Your task to perform on an android device: Open display settings Image 0: 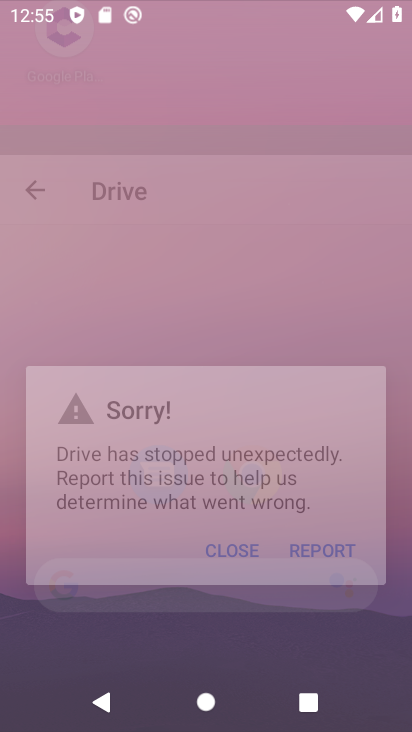
Step 0: click (370, 246)
Your task to perform on an android device: Open display settings Image 1: 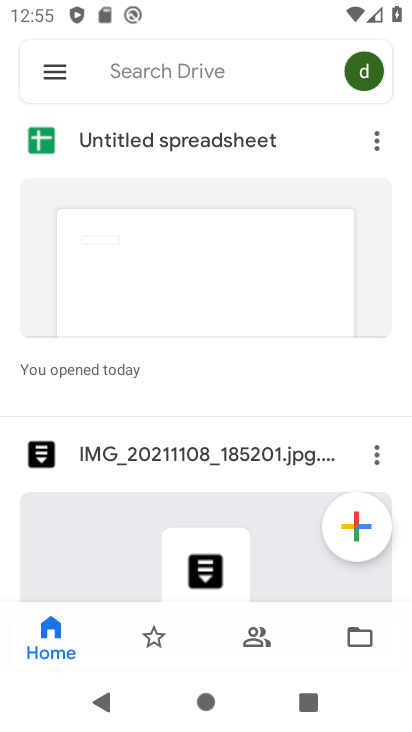
Step 1: press home button
Your task to perform on an android device: Open display settings Image 2: 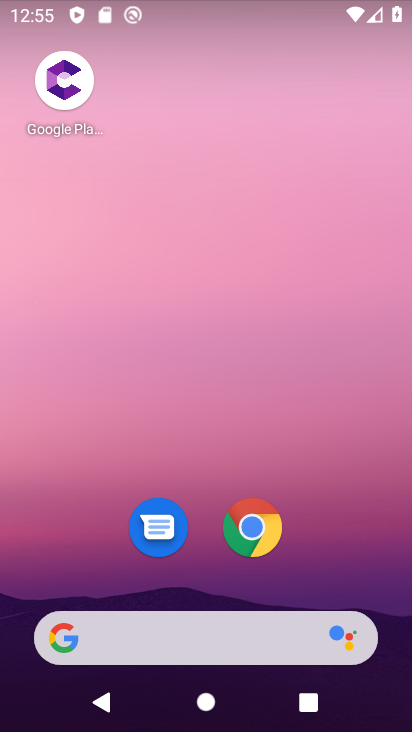
Step 2: drag from (341, 583) to (315, 28)
Your task to perform on an android device: Open display settings Image 3: 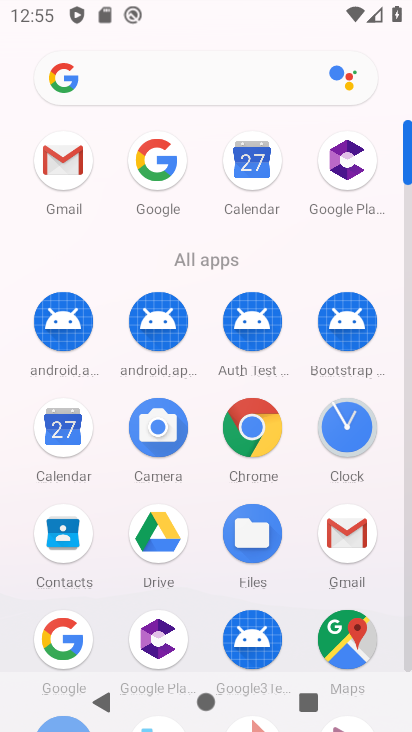
Step 3: drag from (269, 273) to (284, 93)
Your task to perform on an android device: Open display settings Image 4: 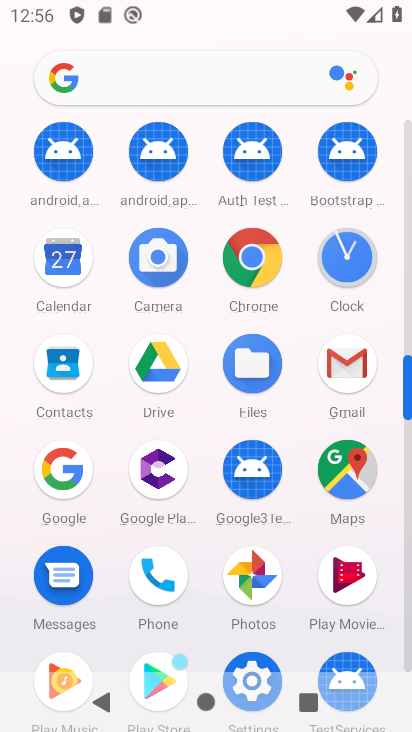
Step 4: drag from (199, 573) to (205, 385)
Your task to perform on an android device: Open display settings Image 5: 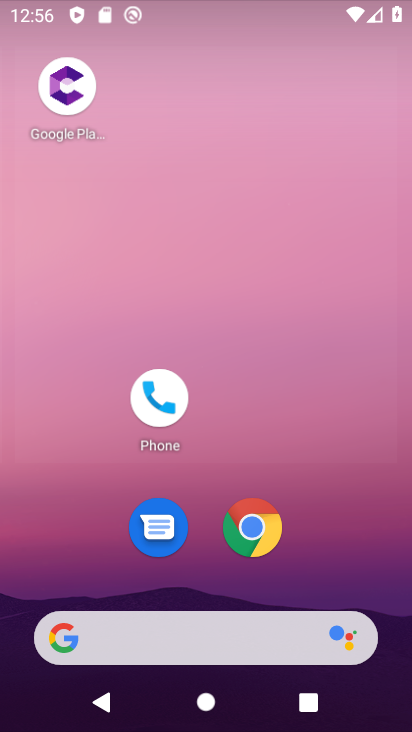
Step 5: drag from (326, 505) to (352, 6)
Your task to perform on an android device: Open display settings Image 6: 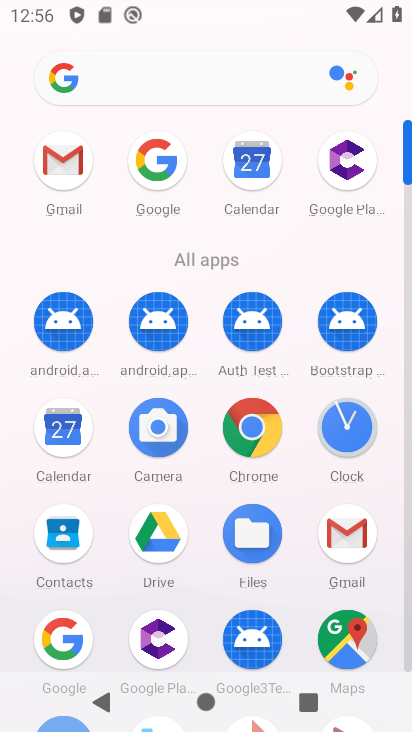
Step 6: drag from (301, 282) to (309, 126)
Your task to perform on an android device: Open display settings Image 7: 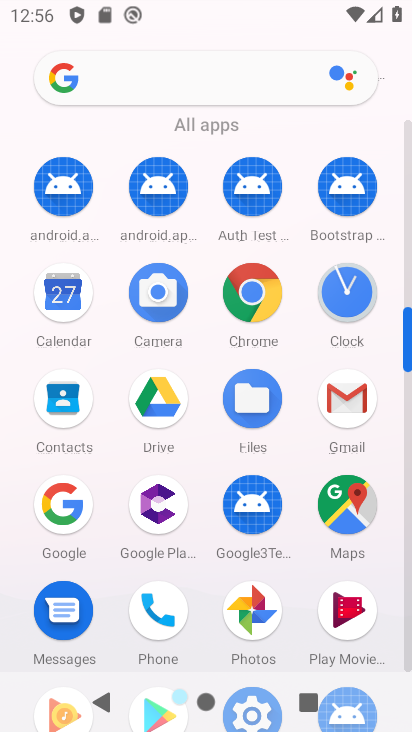
Step 7: drag from (293, 594) to (298, 370)
Your task to perform on an android device: Open display settings Image 8: 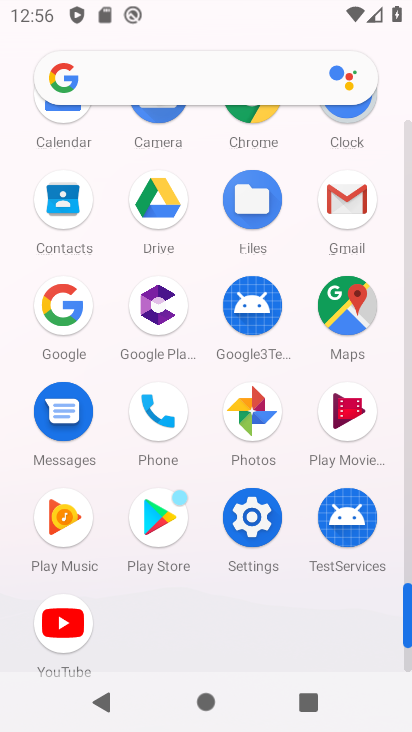
Step 8: click (249, 533)
Your task to perform on an android device: Open display settings Image 9: 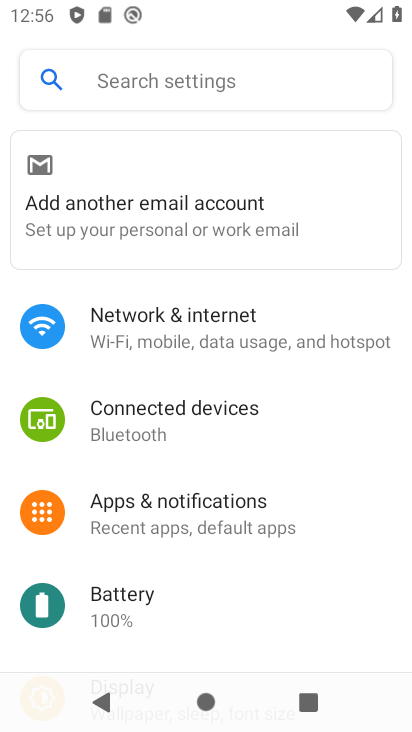
Step 9: drag from (227, 580) to (257, 370)
Your task to perform on an android device: Open display settings Image 10: 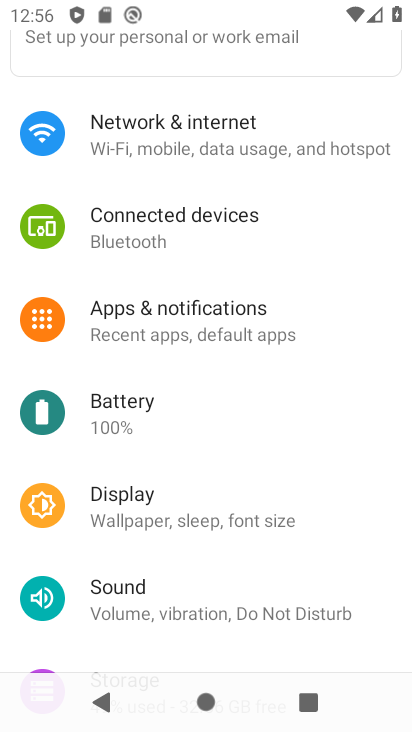
Step 10: click (223, 506)
Your task to perform on an android device: Open display settings Image 11: 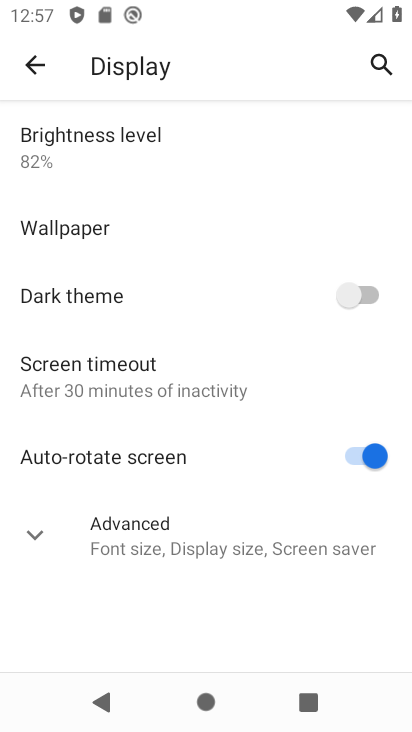
Step 11: task complete